Your task to perform on an android device: Open display settings Image 0: 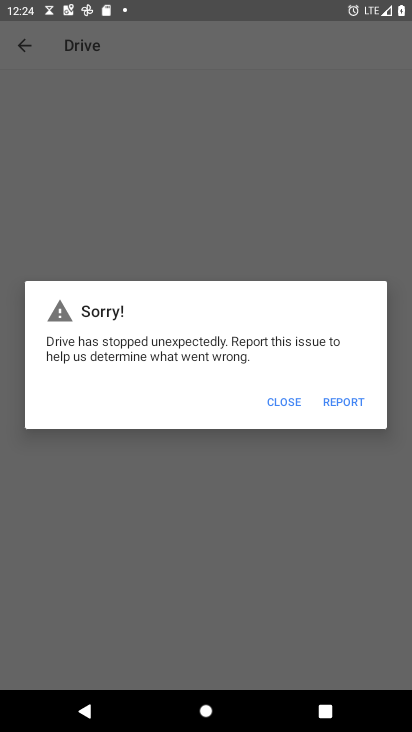
Step 0: press home button
Your task to perform on an android device: Open display settings Image 1: 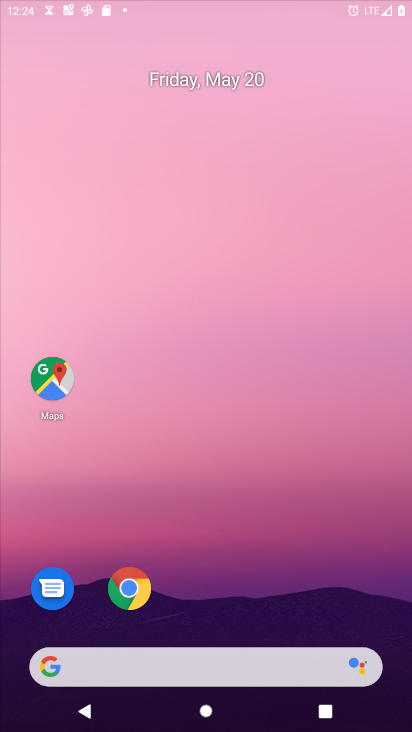
Step 1: drag from (278, 558) to (211, 64)
Your task to perform on an android device: Open display settings Image 2: 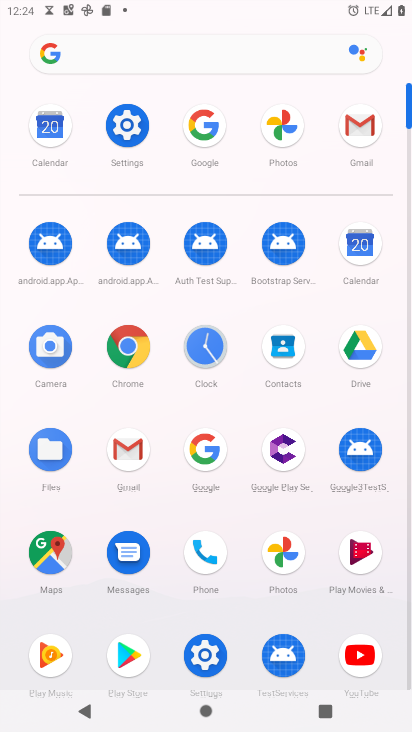
Step 2: click (149, 113)
Your task to perform on an android device: Open display settings Image 3: 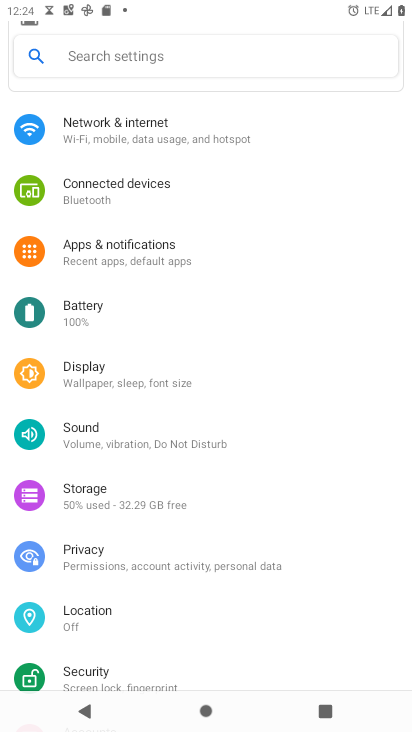
Step 3: click (147, 359)
Your task to perform on an android device: Open display settings Image 4: 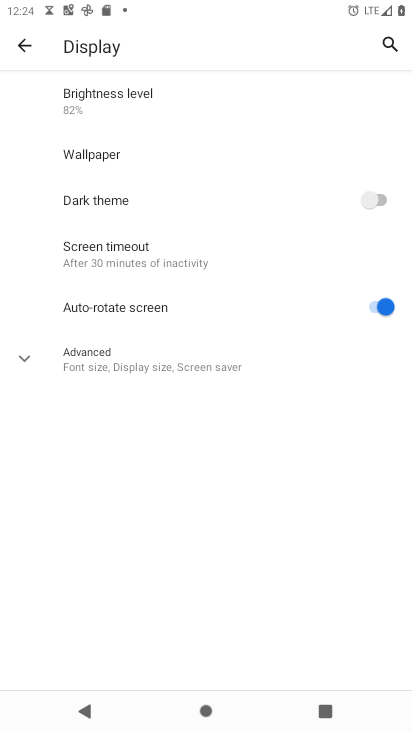
Step 4: task complete